Your task to perform on an android device: uninstall "Speedtest by Ookla" Image 0: 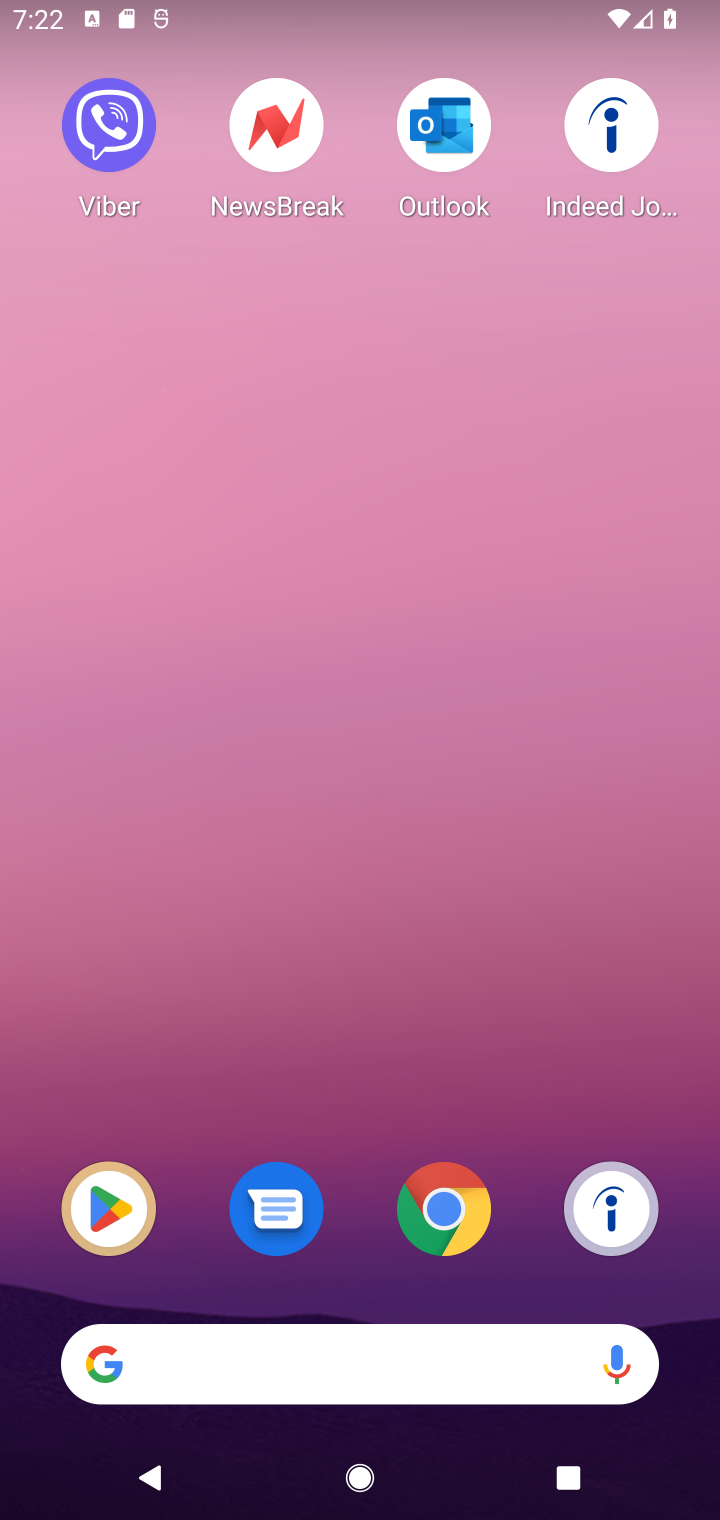
Step 0: click (99, 1199)
Your task to perform on an android device: uninstall "Speedtest by Ookla" Image 1: 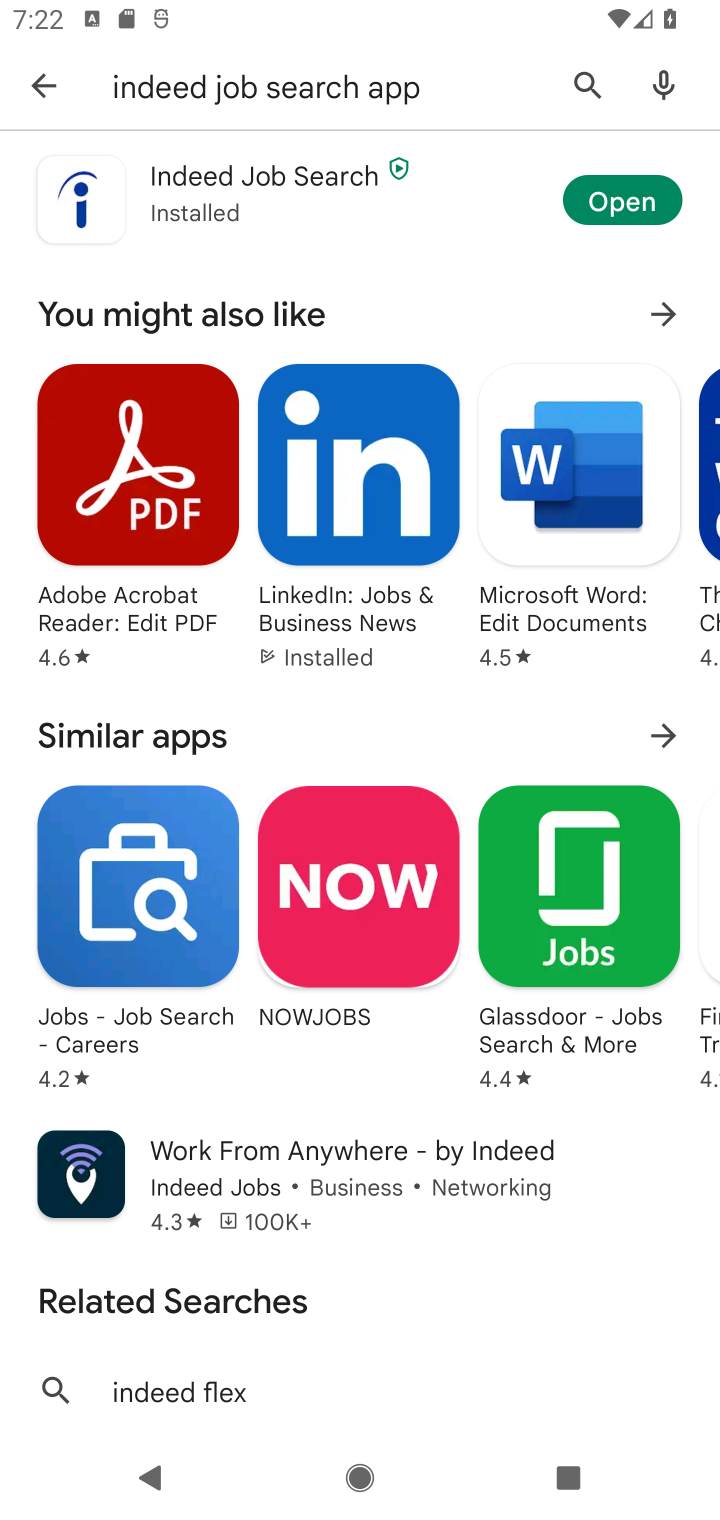
Step 1: click (583, 90)
Your task to perform on an android device: uninstall "Speedtest by Ookla" Image 2: 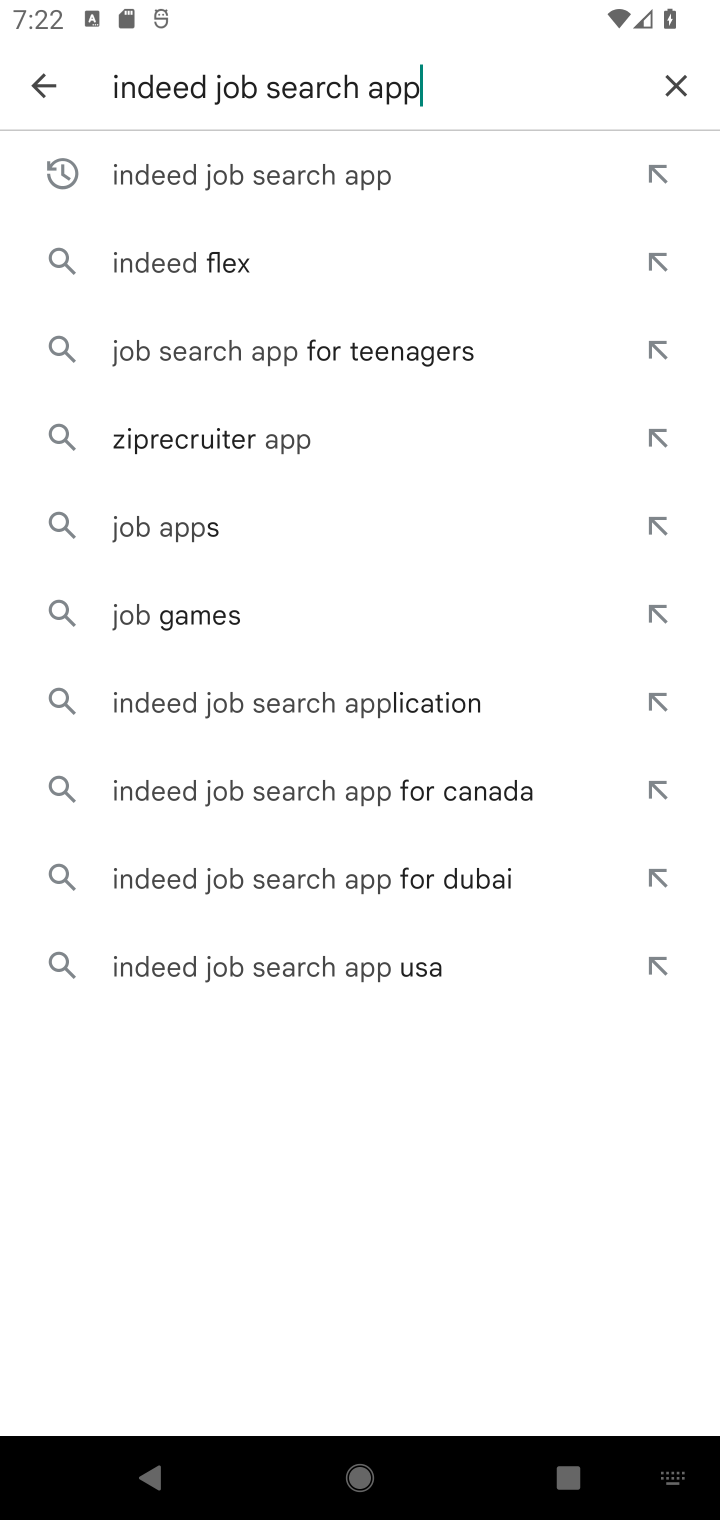
Step 2: click (663, 84)
Your task to perform on an android device: uninstall "Speedtest by Ookla" Image 3: 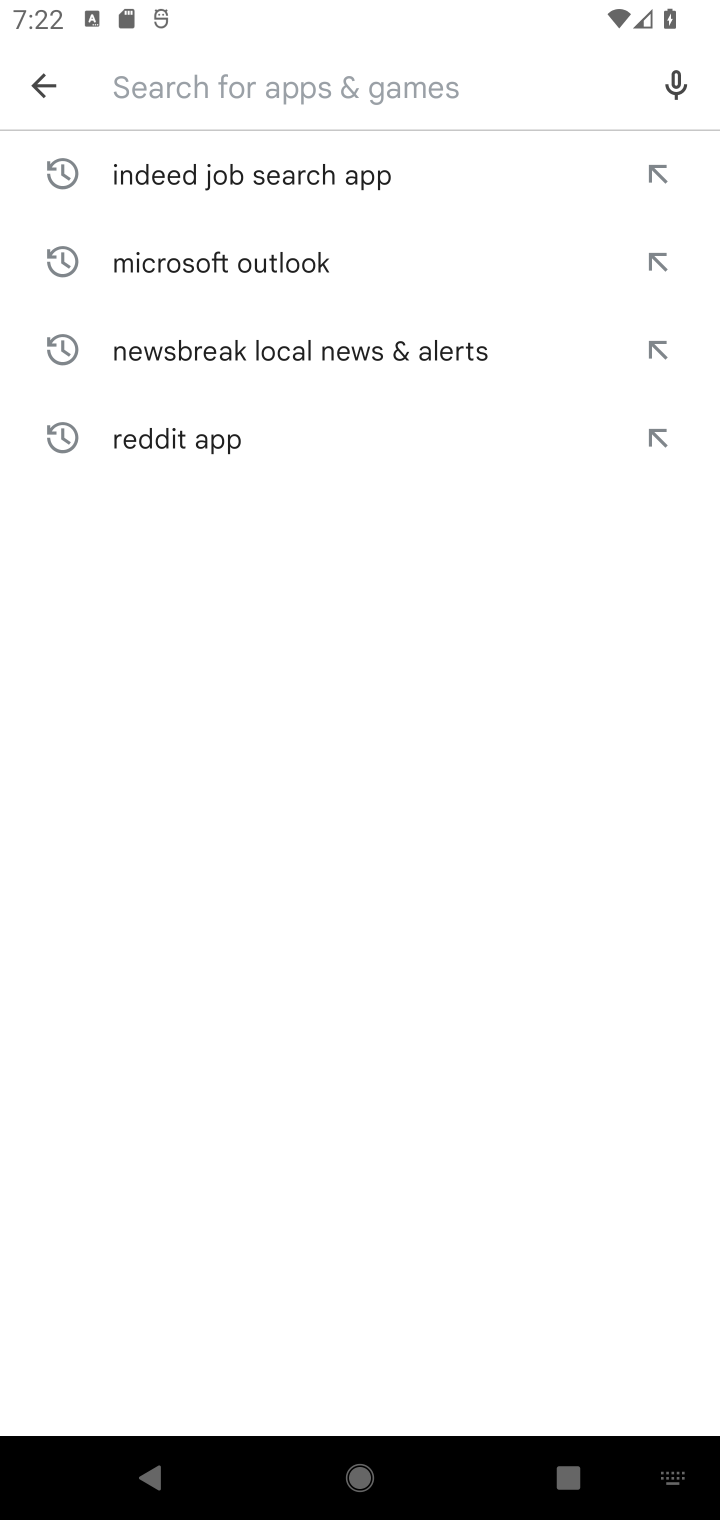
Step 3: type "Speedtest by Ookla"
Your task to perform on an android device: uninstall "Speedtest by Ookla" Image 4: 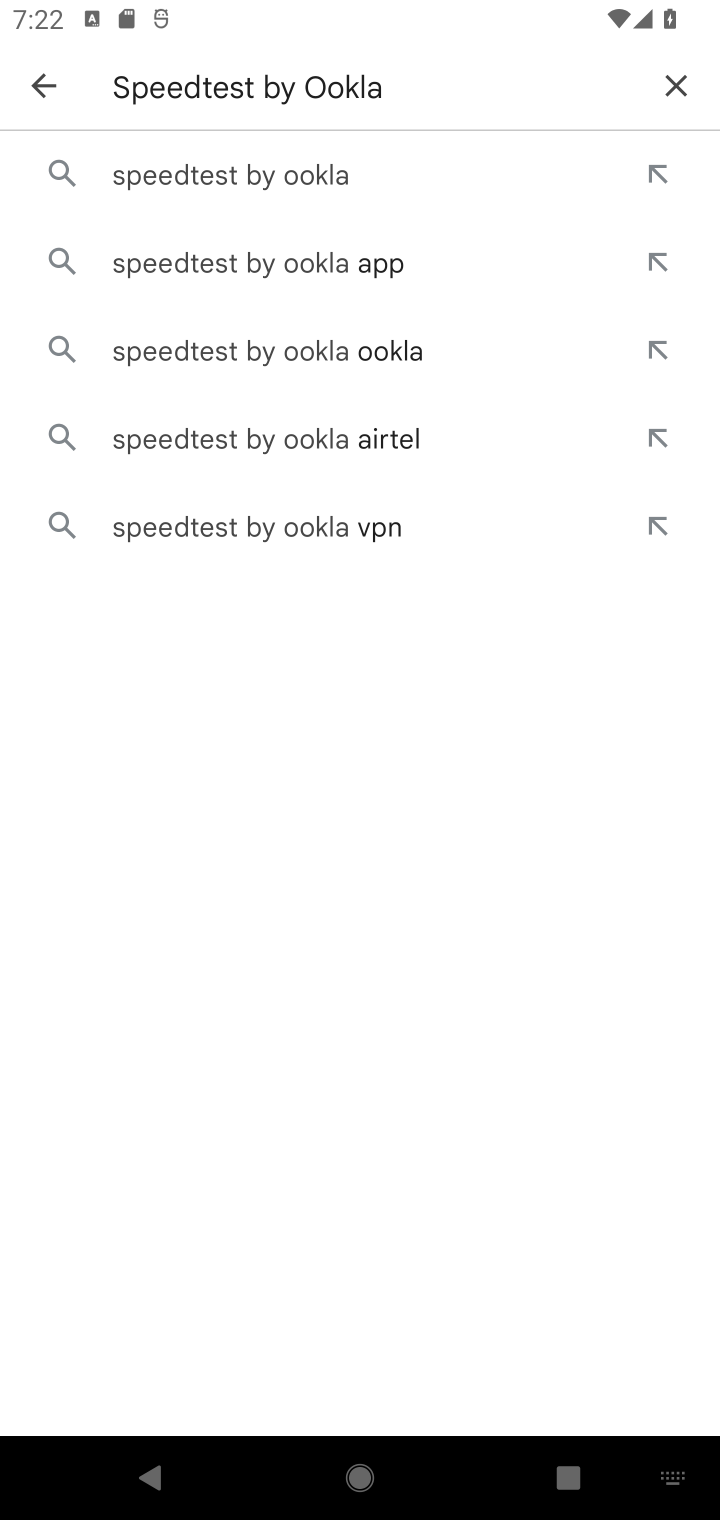
Step 4: click (176, 187)
Your task to perform on an android device: uninstall "Speedtest by Ookla" Image 5: 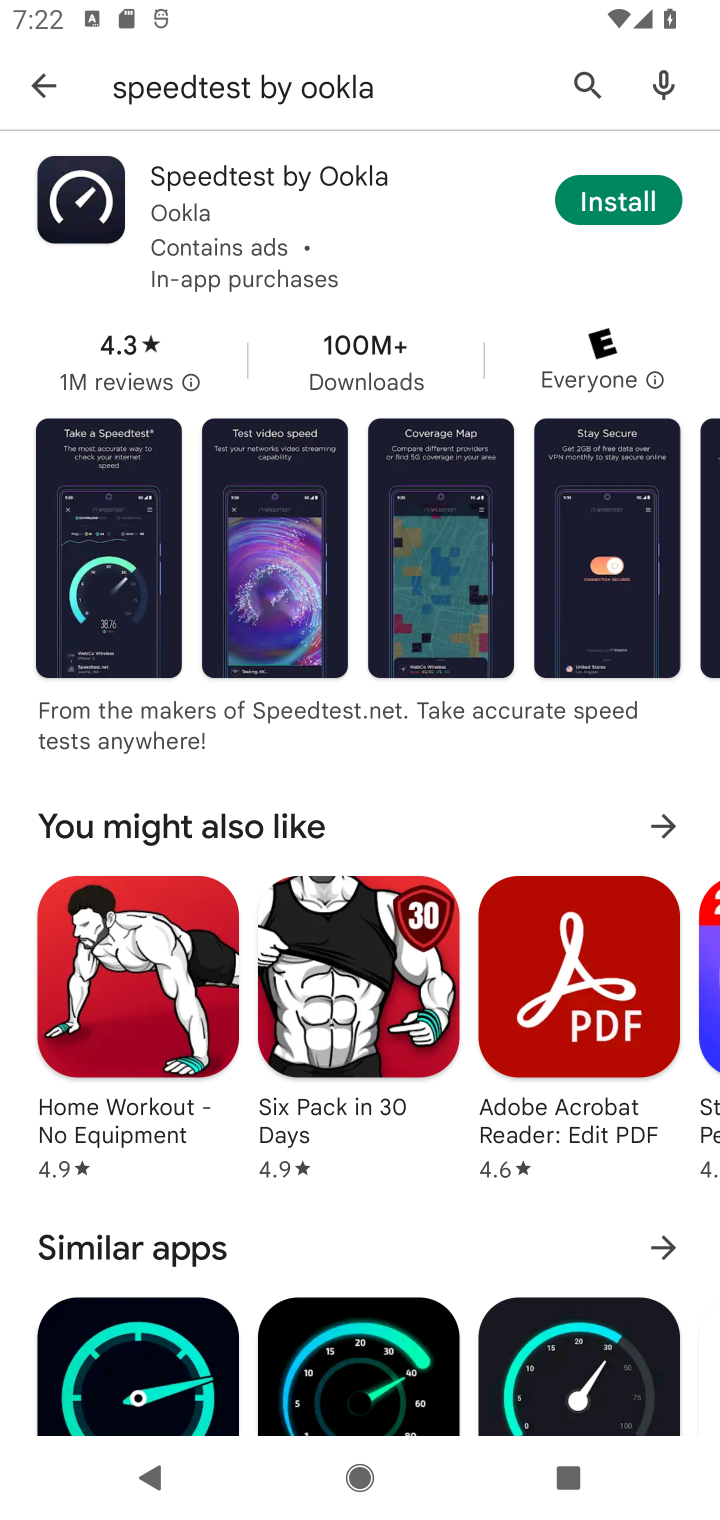
Step 5: task complete